Your task to perform on an android device: Search for the new ikea dresser Image 0: 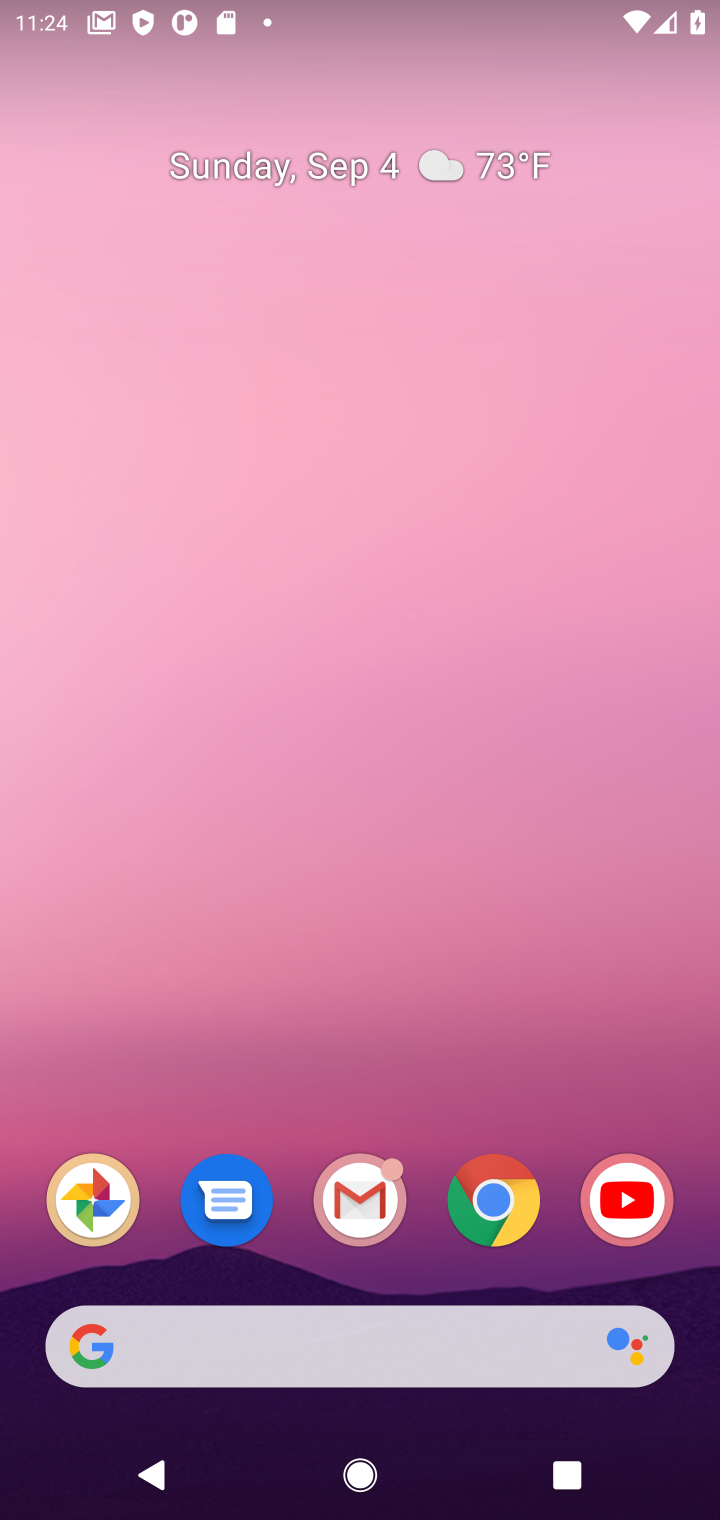
Step 0: click (499, 1218)
Your task to perform on an android device: Search for the new ikea dresser Image 1: 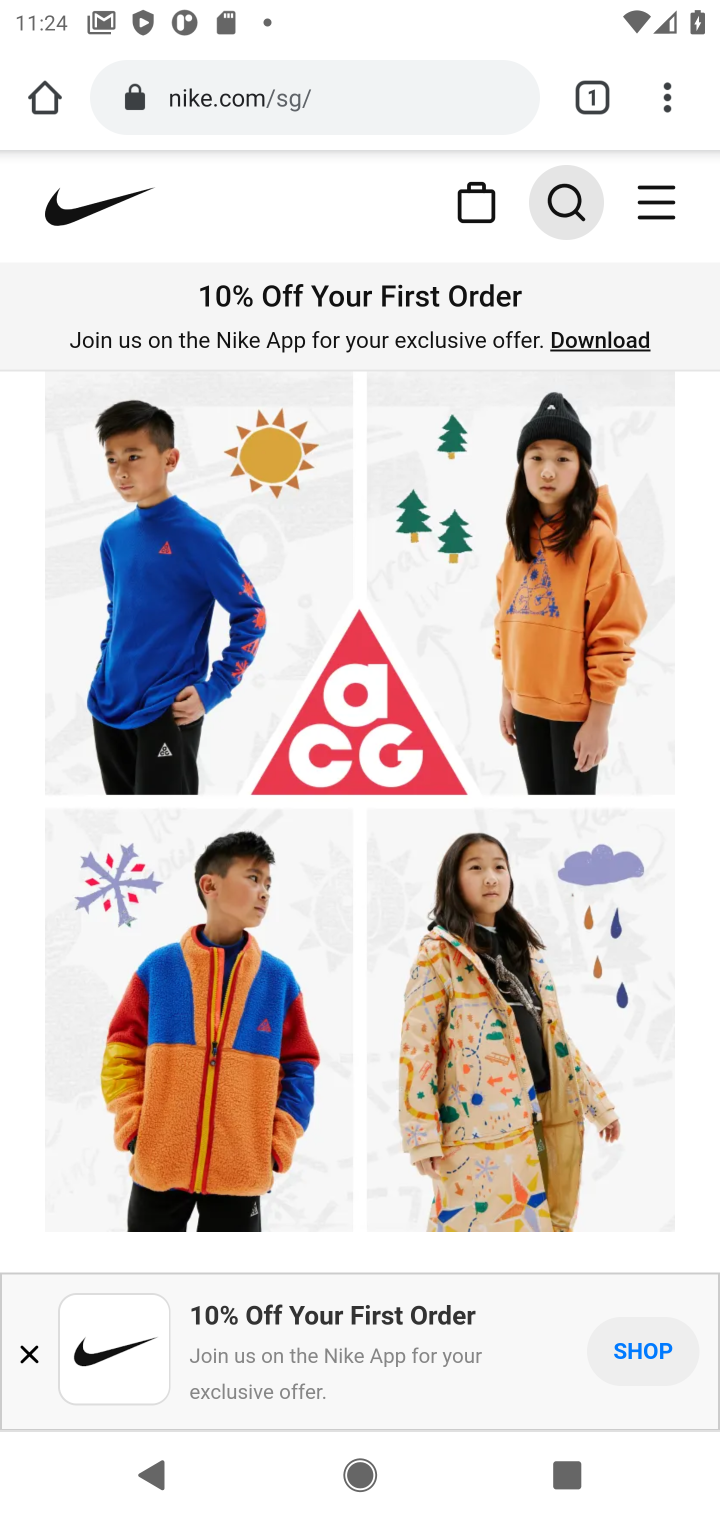
Step 1: click (458, 98)
Your task to perform on an android device: Search for the new ikea dresser Image 2: 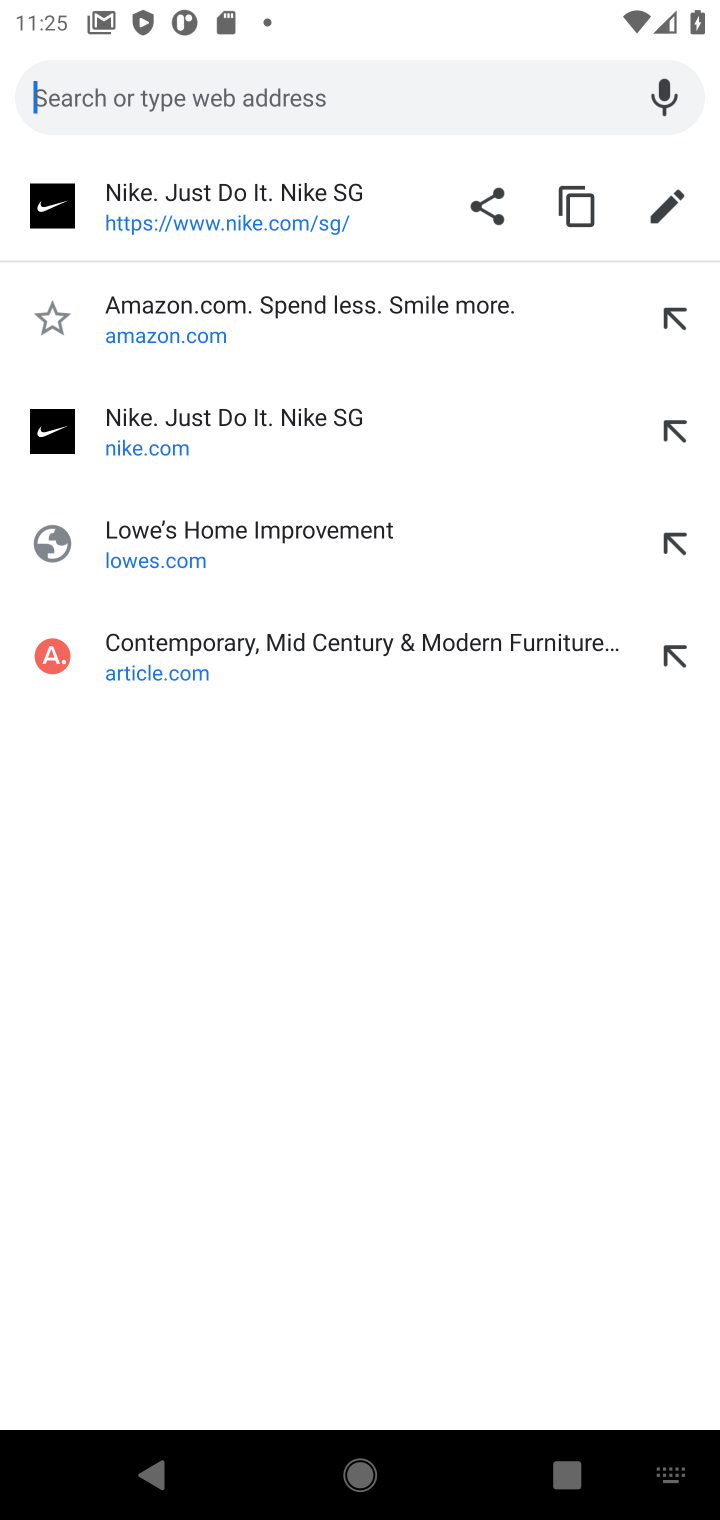
Step 2: type "new ikea dresser"
Your task to perform on an android device: Search for the new ikea dresser Image 3: 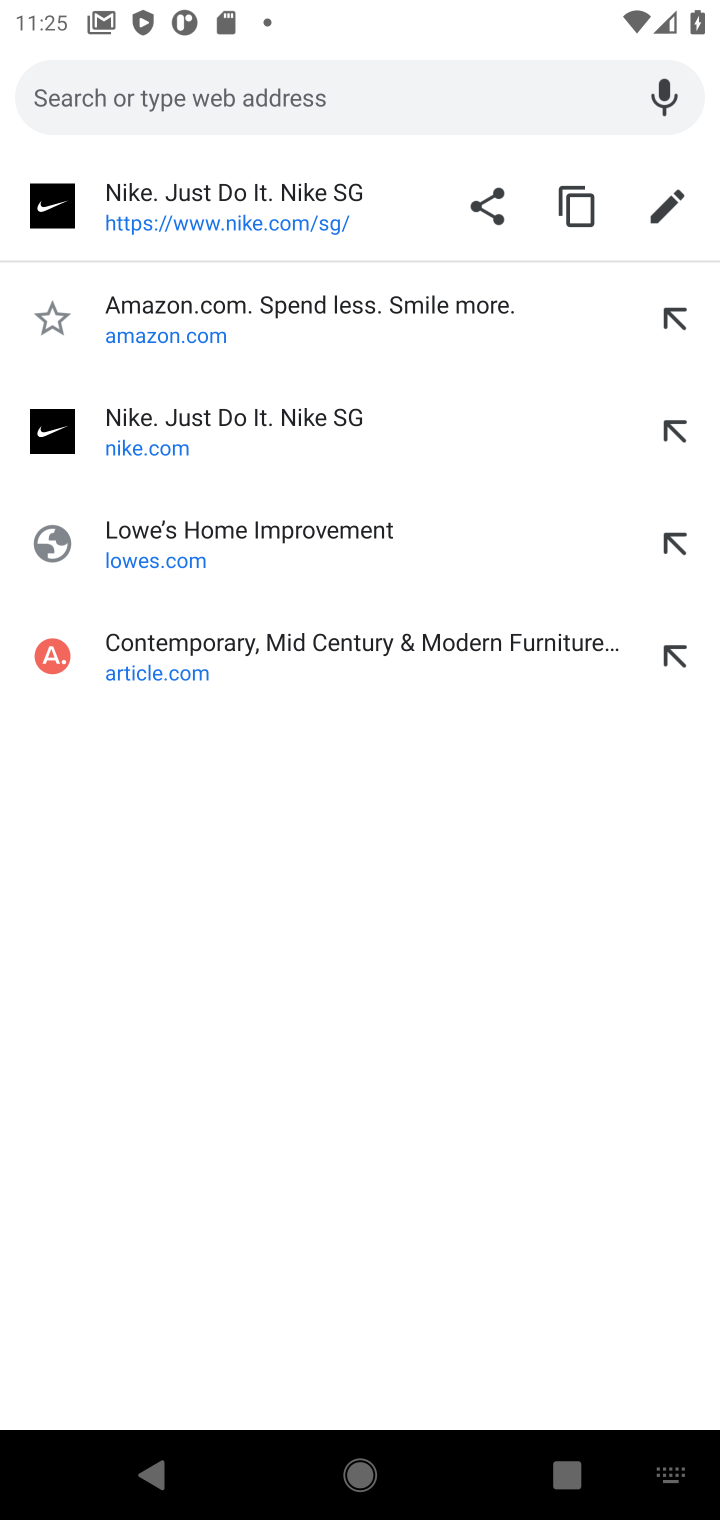
Step 3: click (416, 102)
Your task to perform on an android device: Search for the new ikea dresser Image 4: 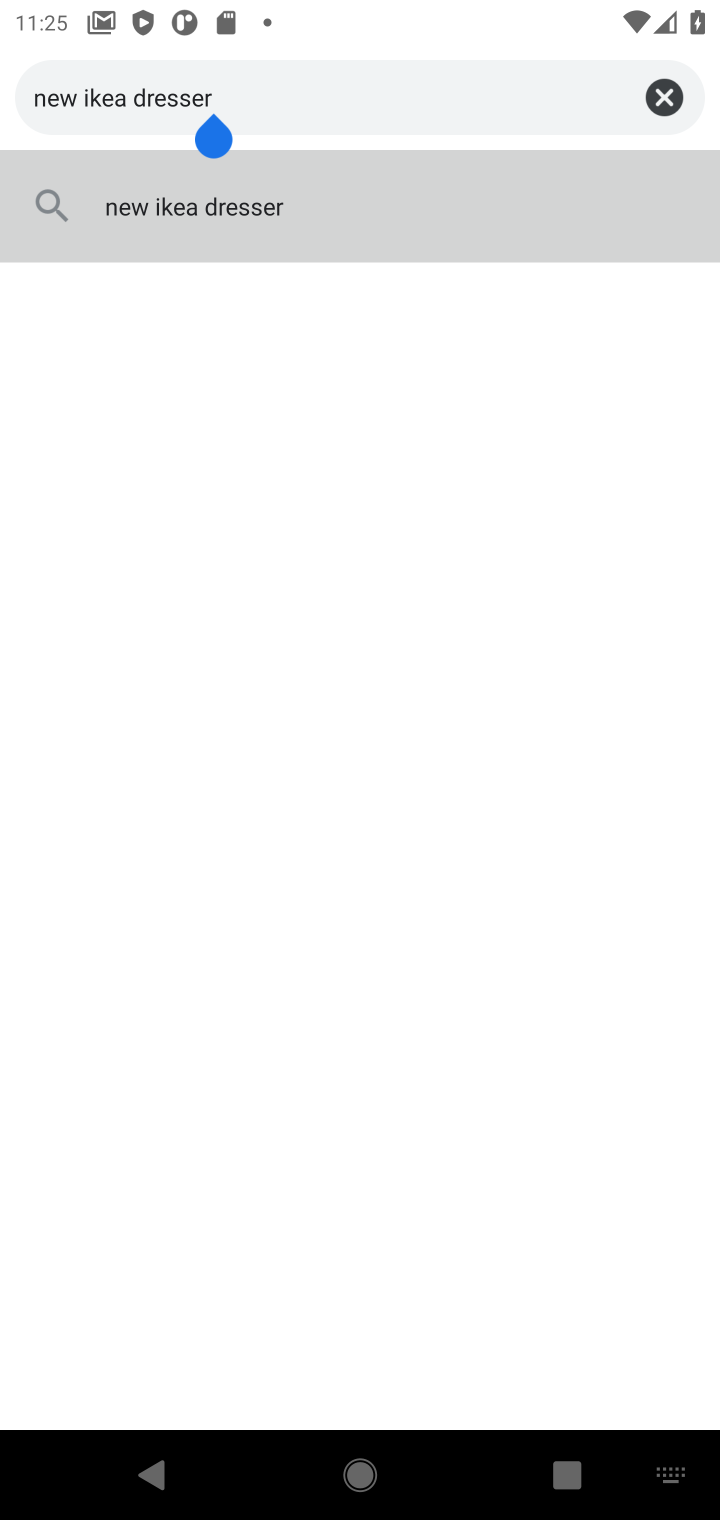
Step 4: click (303, 202)
Your task to perform on an android device: Search for the new ikea dresser Image 5: 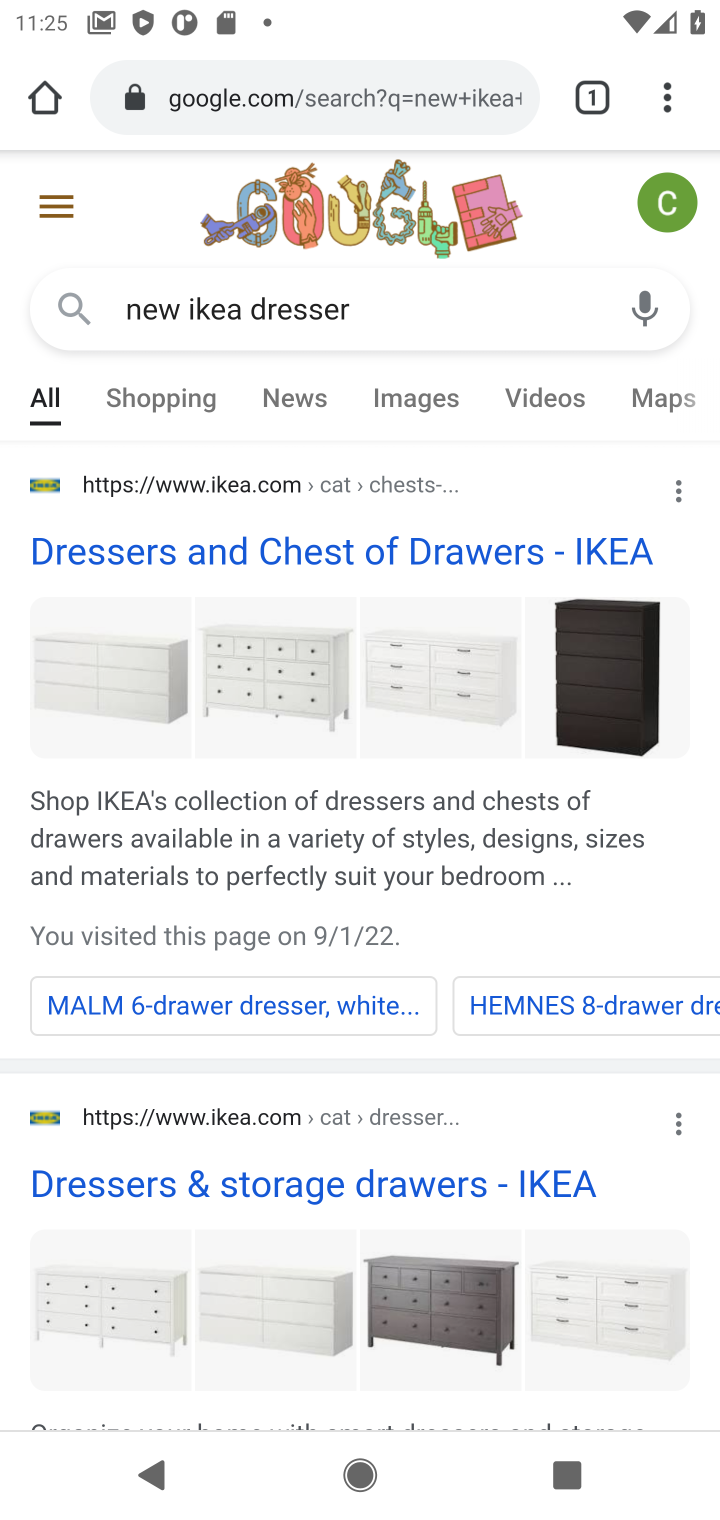
Step 5: task complete